Your task to perform on an android device: toggle data saver in the chrome app Image 0: 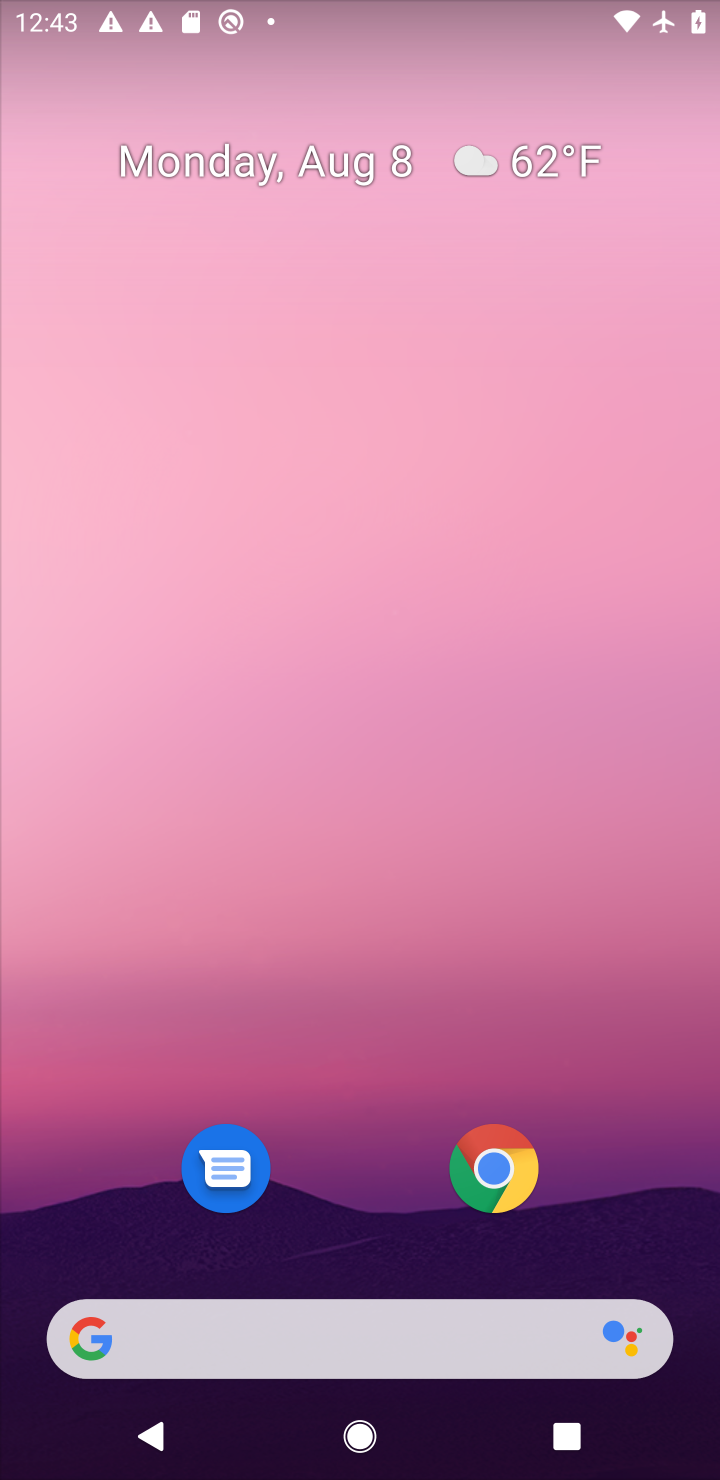
Step 0: click (498, 1200)
Your task to perform on an android device: toggle data saver in the chrome app Image 1: 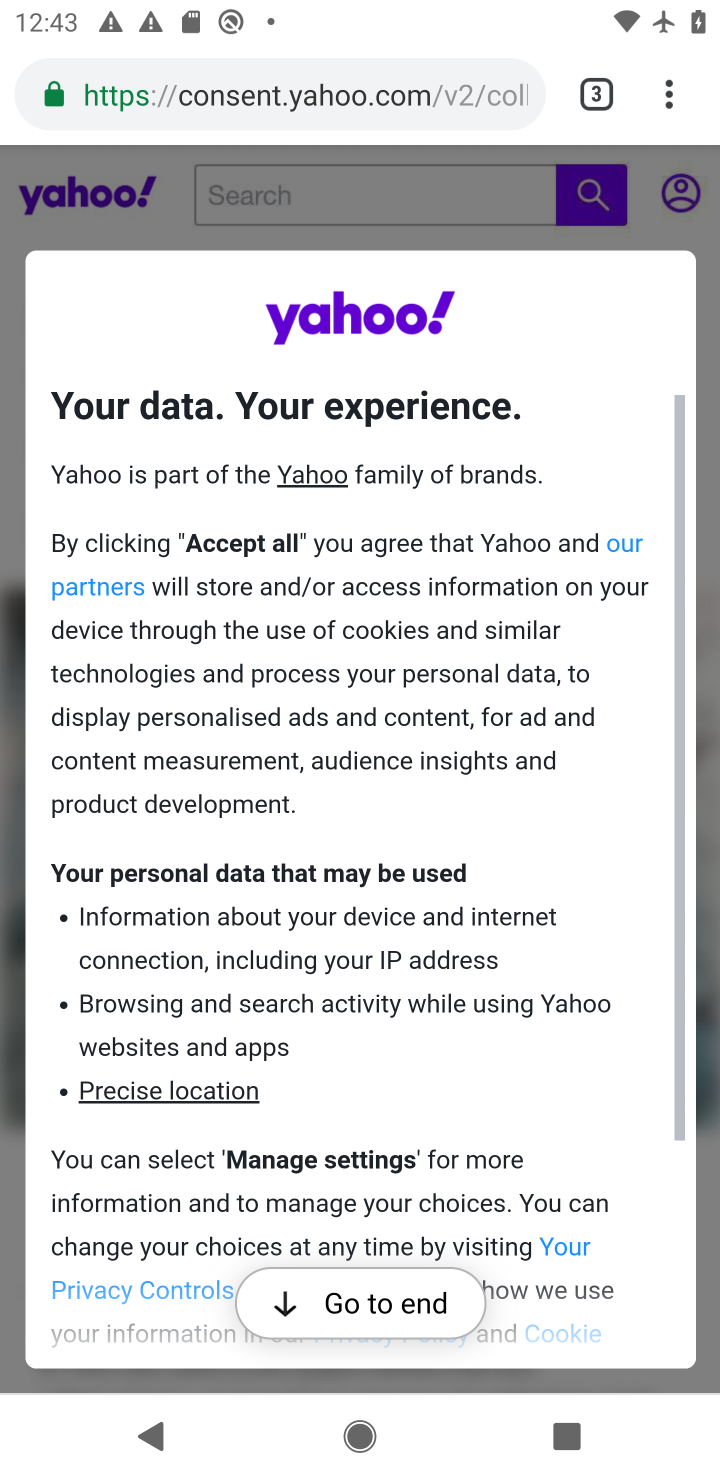
Step 1: click (665, 115)
Your task to perform on an android device: toggle data saver in the chrome app Image 2: 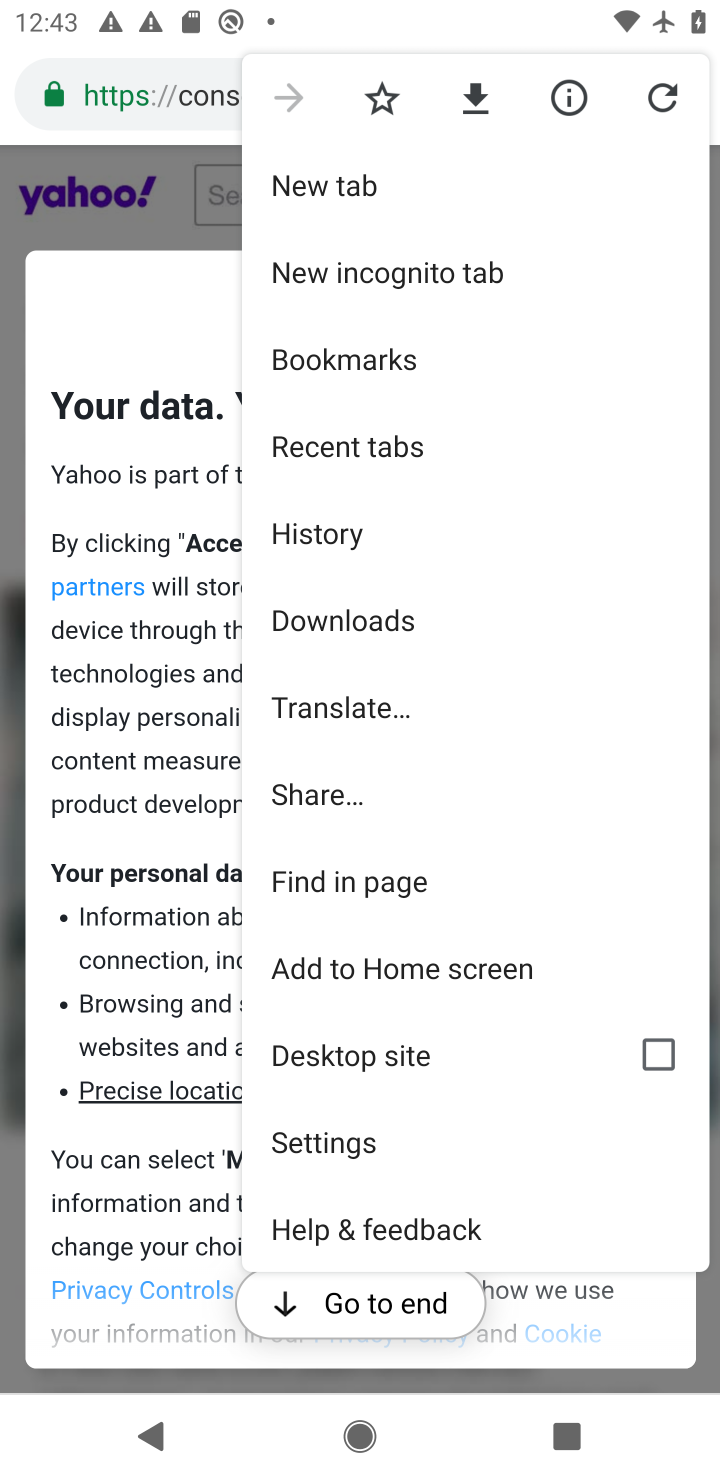
Step 2: click (414, 1113)
Your task to perform on an android device: toggle data saver in the chrome app Image 3: 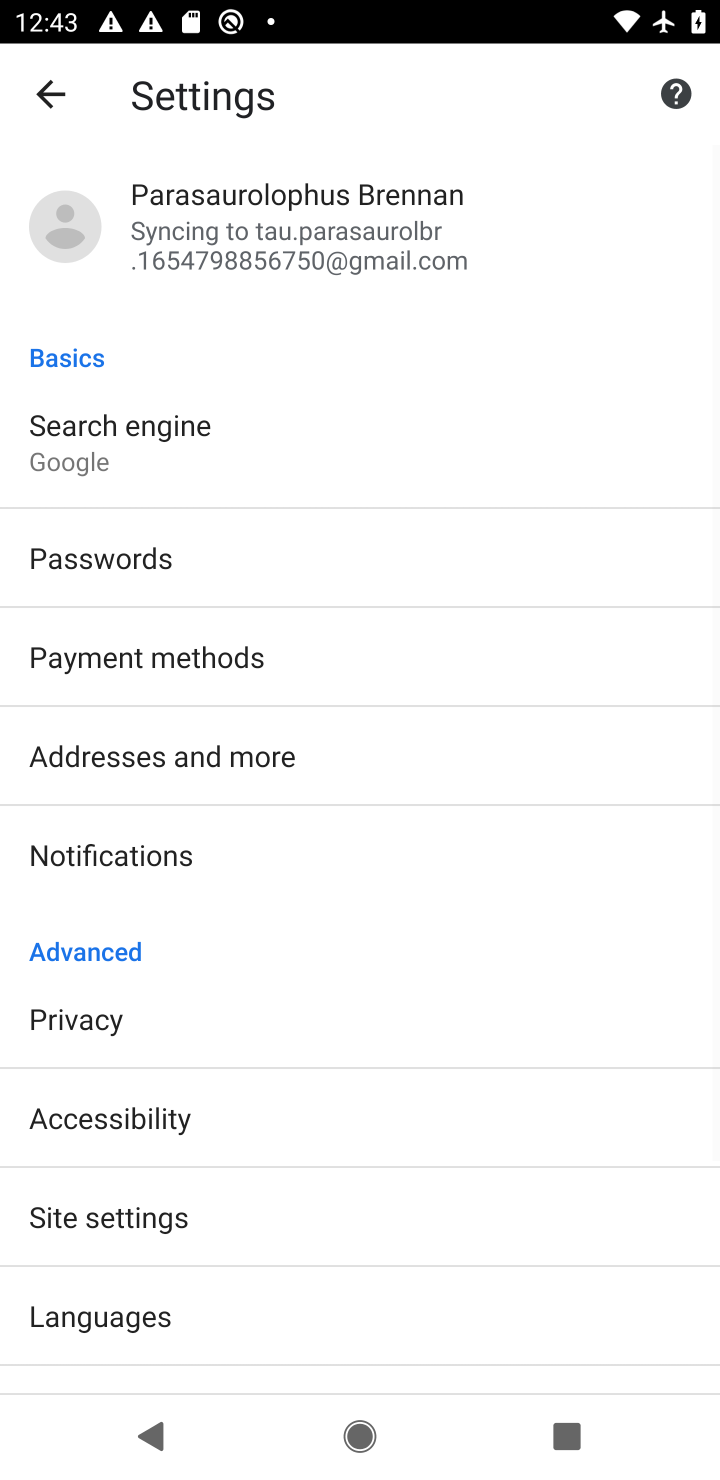
Step 3: click (271, 1248)
Your task to perform on an android device: toggle data saver in the chrome app Image 4: 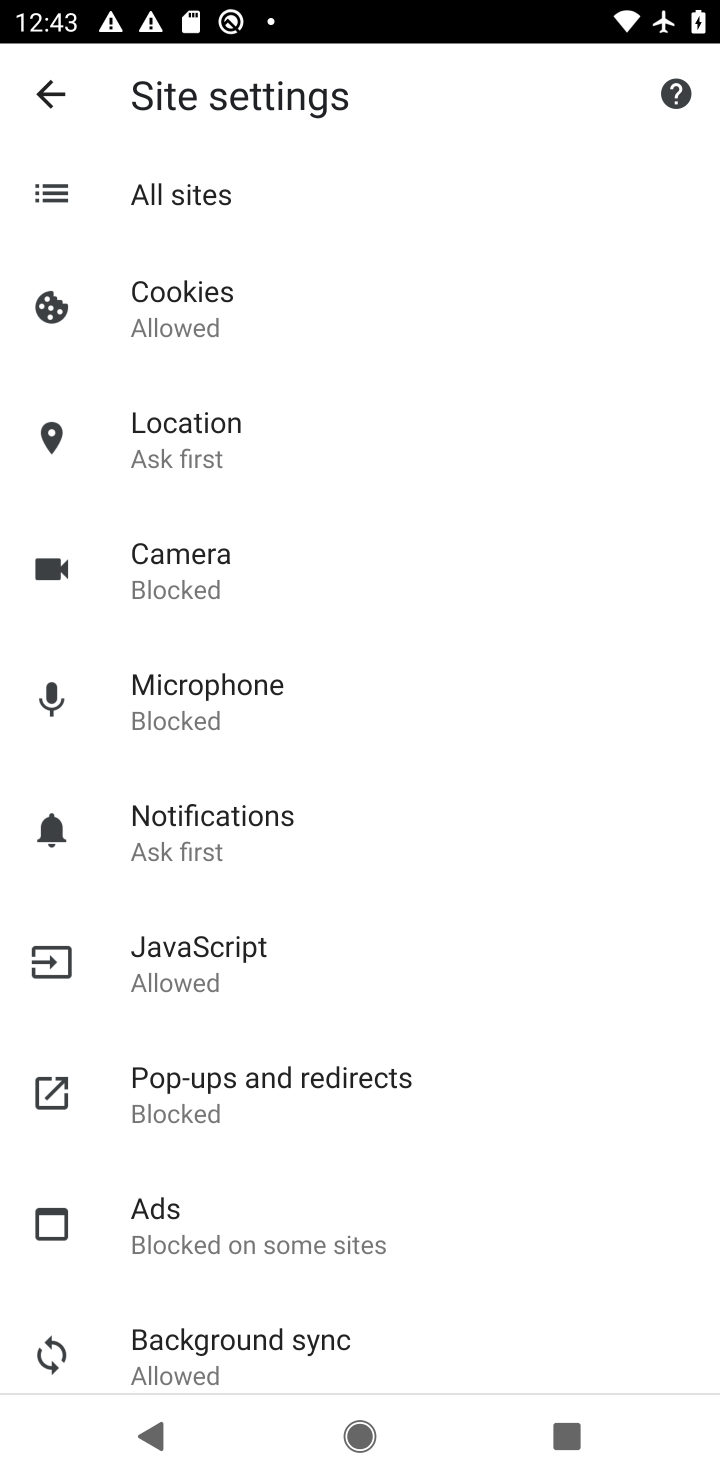
Step 4: click (285, 1000)
Your task to perform on an android device: toggle data saver in the chrome app Image 5: 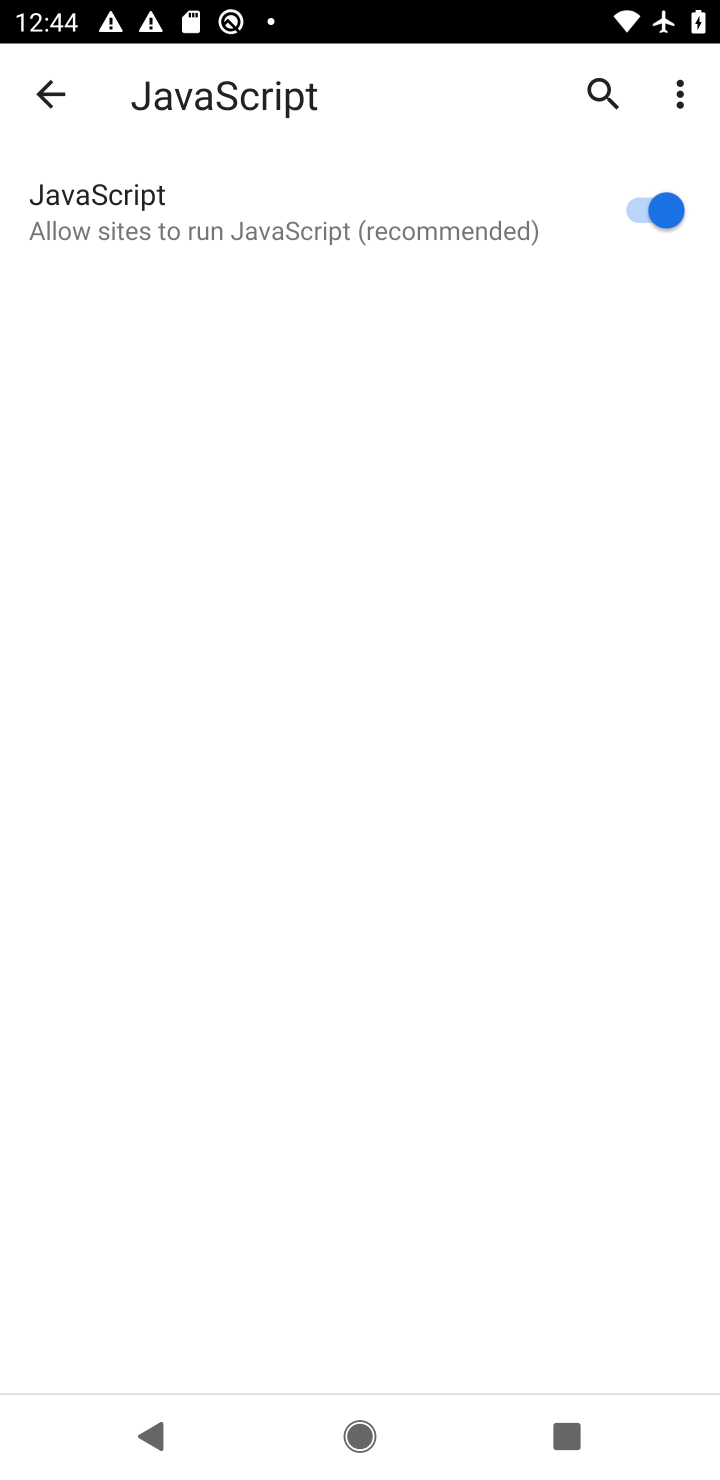
Step 5: task complete